Your task to perform on an android device: What's on my calendar tomorrow? Image 0: 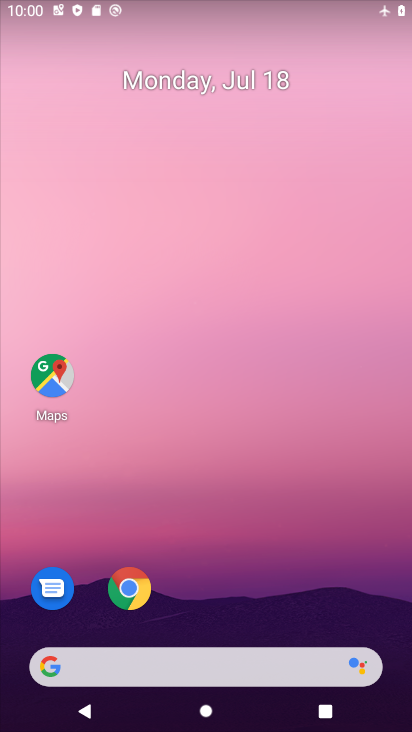
Step 0: drag from (229, 715) to (232, 175)
Your task to perform on an android device: What's on my calendar tomorrow? Image 1: 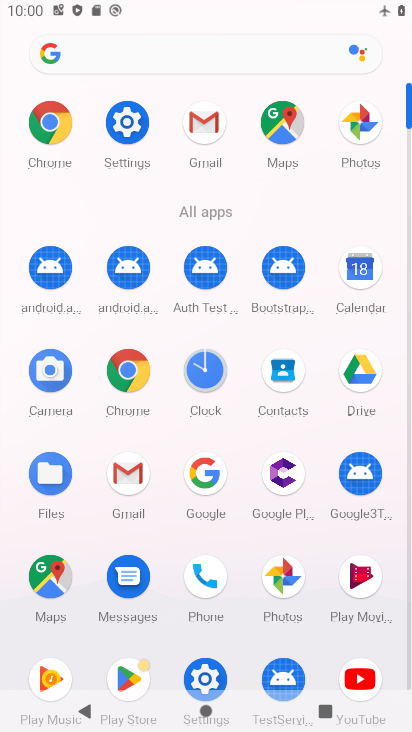
Step 1: click (358, 258)
Your task to perform on an android device: What's on my calendar tomorrow? Image 2: 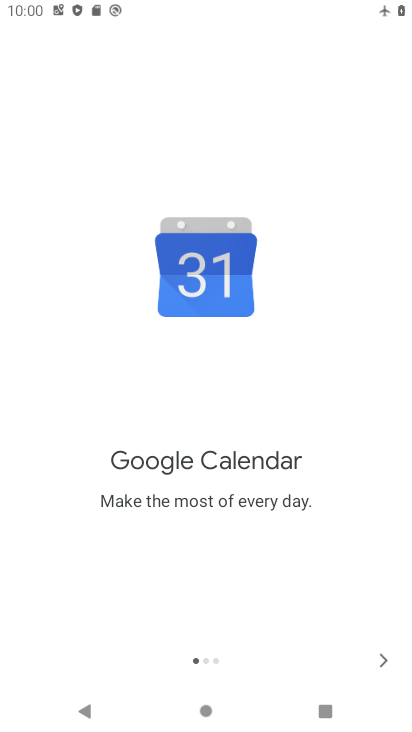
Step 2: click (381, 655)
Your task to perform on an android device: What's on my calendar tomorrow? Image 3: 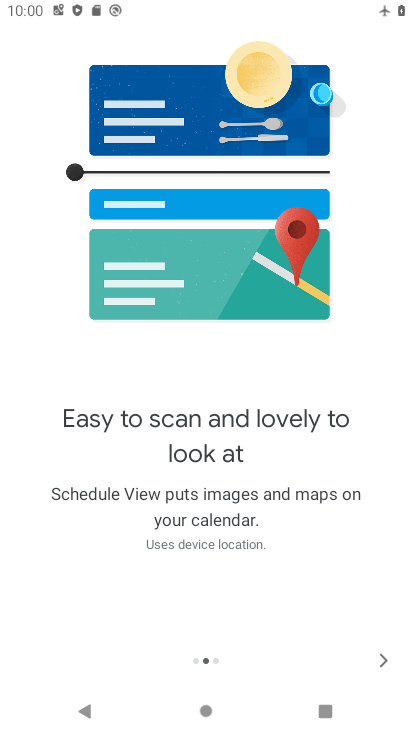
Step 3: click (381, 656)
Your task to perform on an android device: What's on my calendar tomorrow? Image 4: 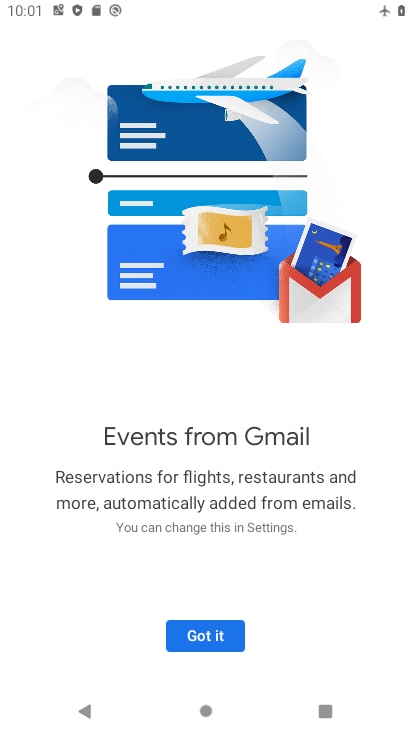
Step 4: click (223, 631)
Your task to perform on an android device: What's on my calendar tomorrow? Image 5: 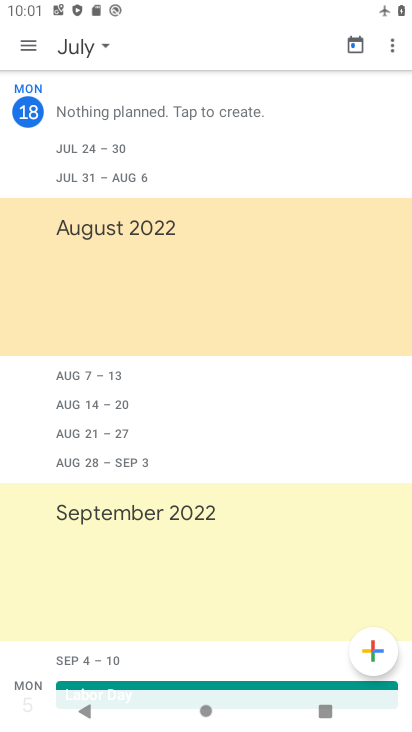
Step 5: click (98, 39)
Your task to perform on an android device: What's on my calendar tomorrow? Image 6: 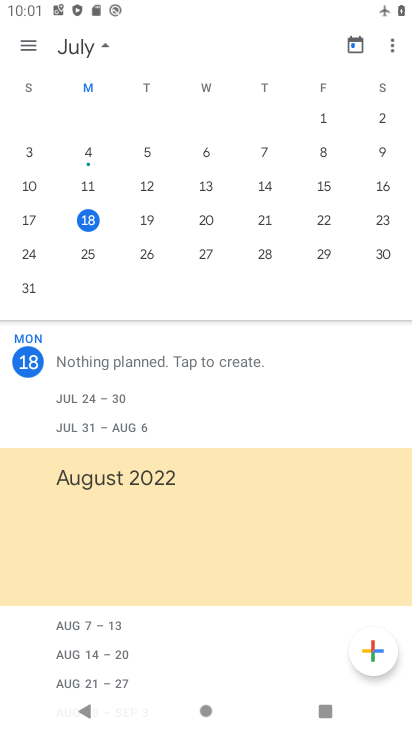
Step 6: click (147, 219)
Your task to perform on an android device: What's on my calendar tomorrow? Image 7: 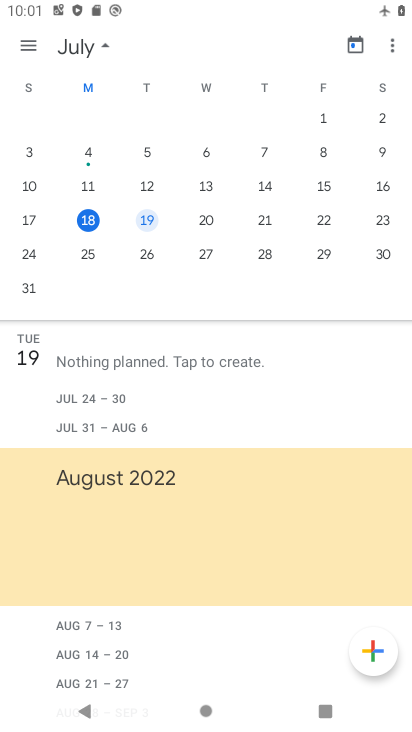
Step 7: task complete